Your task to perform on an android device: Go to Maps Image 0: 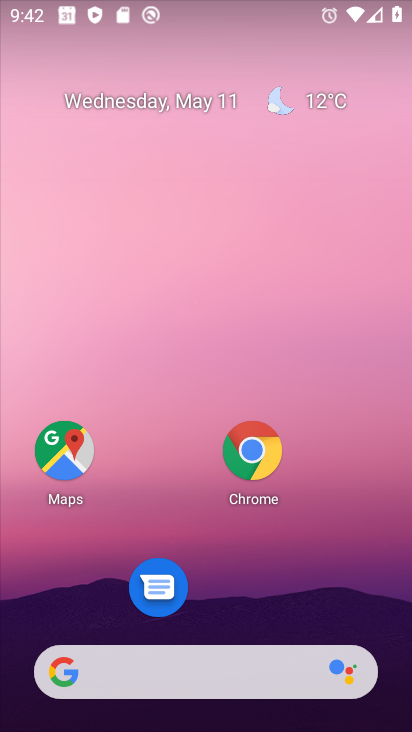
Step 0: click (68, 459)
Your task to perform on an android device: Go to Maps Image 1: 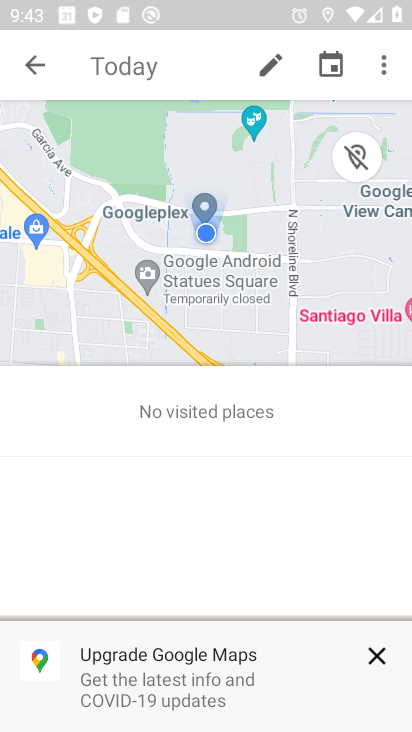
Step 1: task complete